Your task to perform on an android device: Go to privacy settings Image 0: 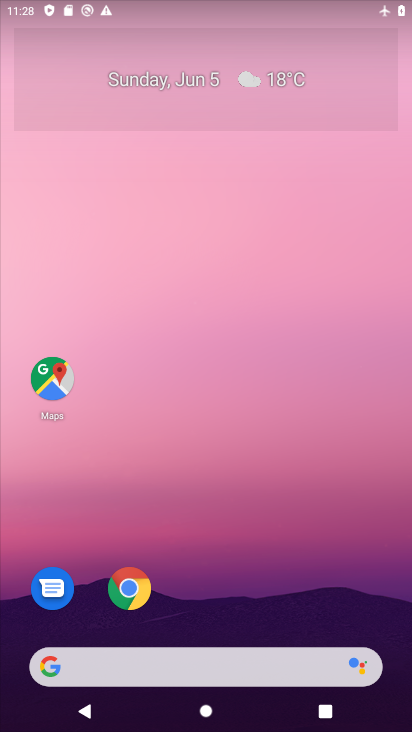
Step 0: drag from (264, 624) to (209, 159)
Your task to perform on an android device: Go to privacy settings Image 1: 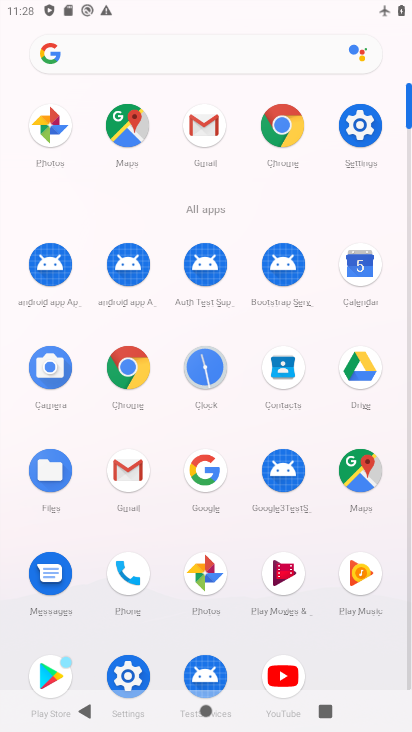
Step 1: click (364, 122)
Your task to perform on an android device: Go to privacy settings Image 2: 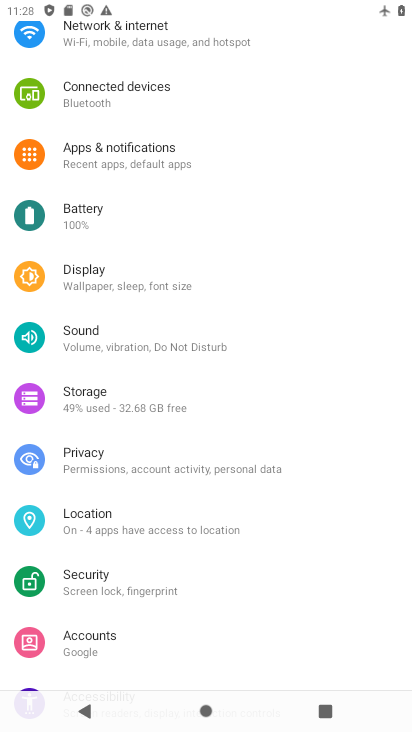
Step 2: click (216, 448)
Your task to perform on an android device: Go to privacy settings Image 3: 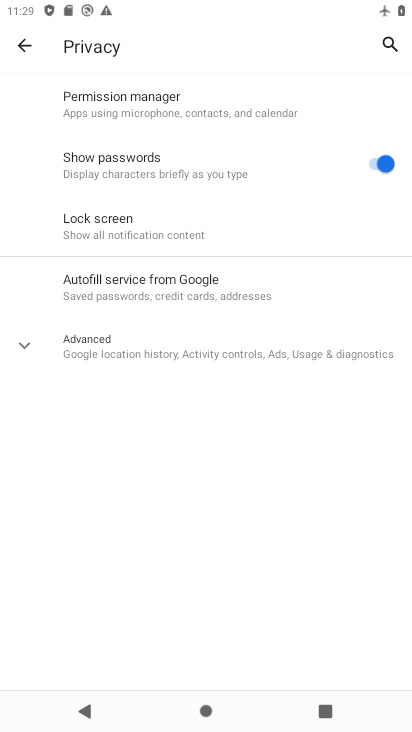
Step 3: task complete